Your task to perform on an android device: Open Google Chrome and open the bookmarks view Image 0: 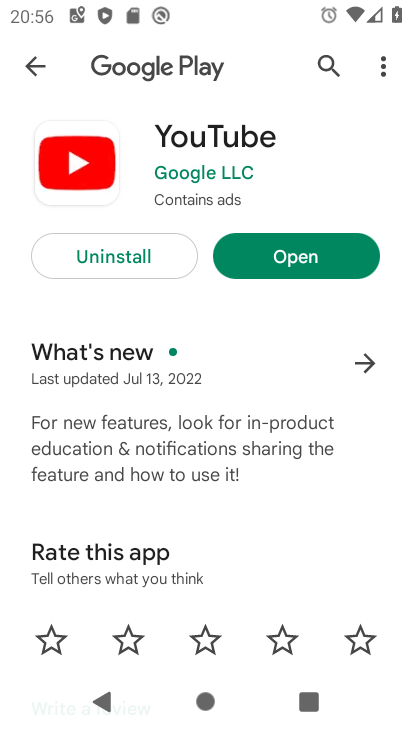
Step 0: press home button
Your task to perform on an android device: Open Google Chrome and open the bookmarks view Image 1: 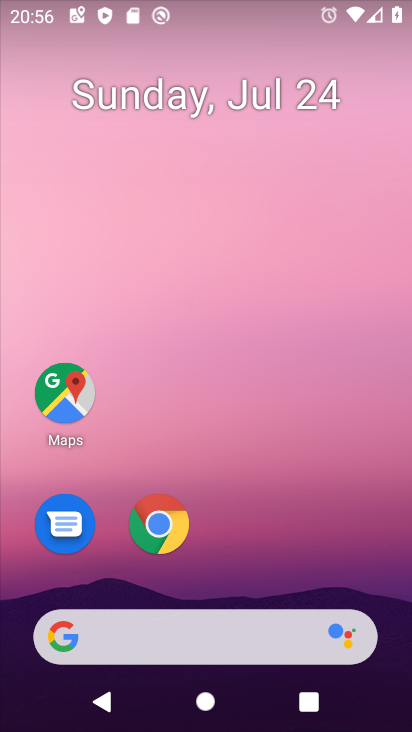
Step 1: click (156, 528)
Your task to perform on an android device: Open Google Chrome and open the bookmarks view Image 2: 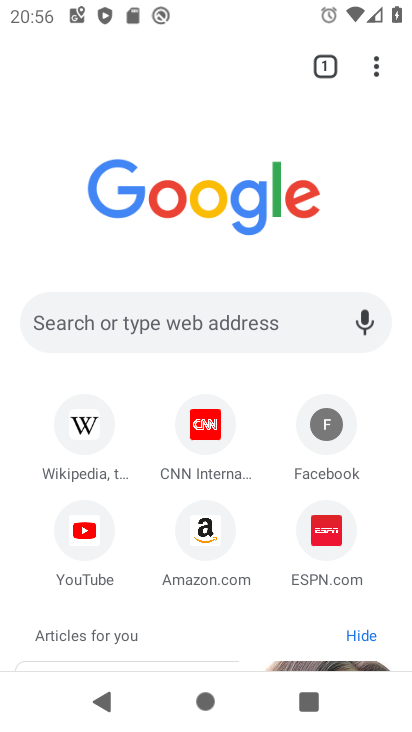
Step 2: click (376, 65)
Your task to perform on an android device: Open Google Chrome and open the bookmarks view Image 3: 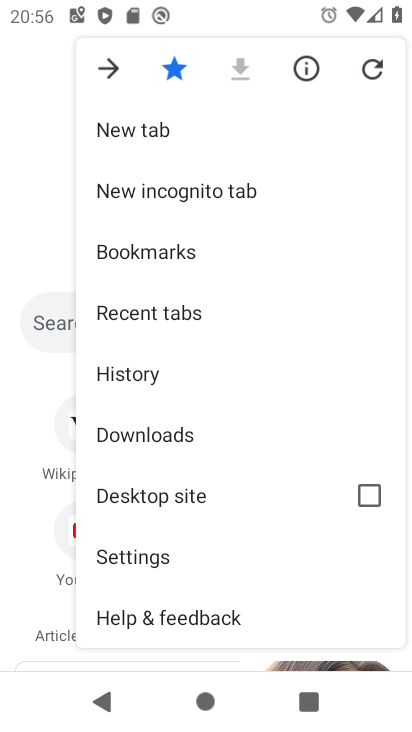
Step 3: click (191, 246)
Your task to perform on an android device: Open Google Chrome and open the bookmarks view Image 4: 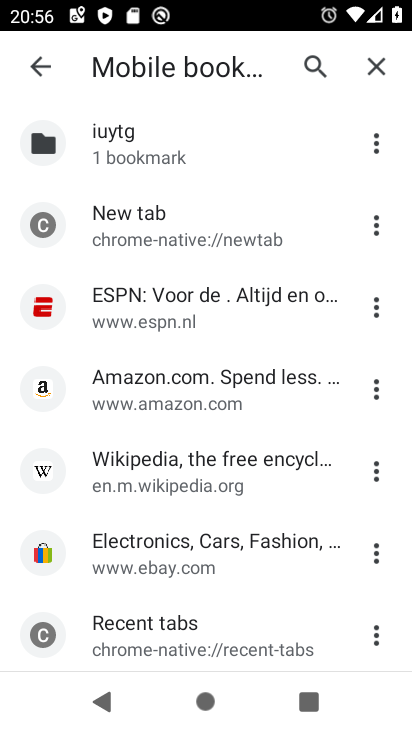
Step 4: task complete